Your task to perform on an android device: Open privacy settings Image 0: 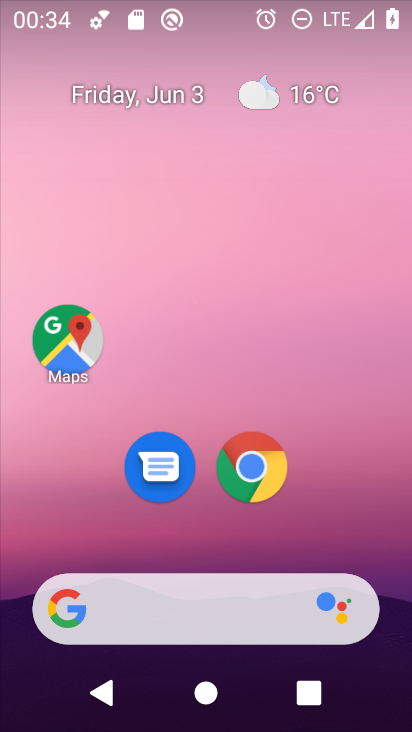
Step 0: drag from (374, 571) to (324, 11)
Your task to perform on an android device: Open privacy settings Image 1: 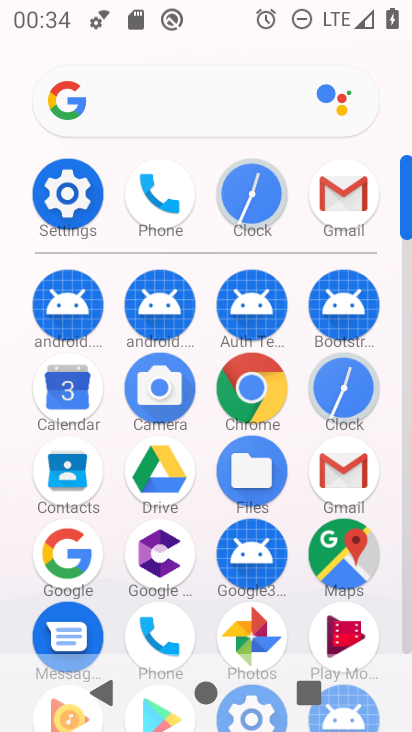
Step 1: click (406, 642)
Your task to perform on an android device: Open privacy settings Image 2: 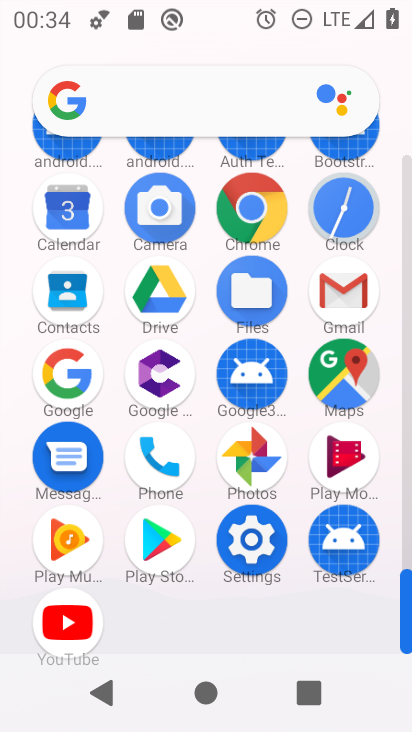
Step 2: click (252, 538)
Your task to perform on an android device: Open privacy settings Image 3: 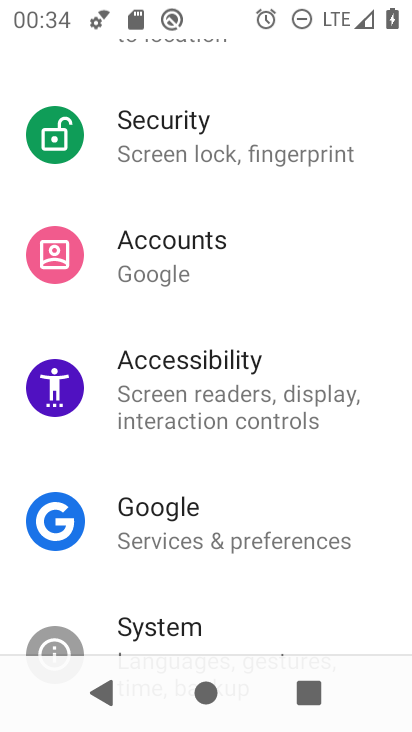
Step 3: drag from (358, 190) to (366, 487)
Your task to perform on an android device: Open privacy settings Image 4: 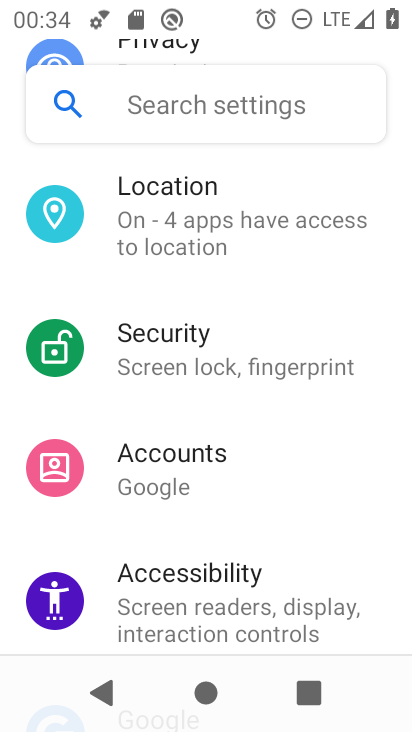
Step 4: drag from (256, 217) to (286, 506)
Your task to perform on an android device: Open privacy settings Image 5: 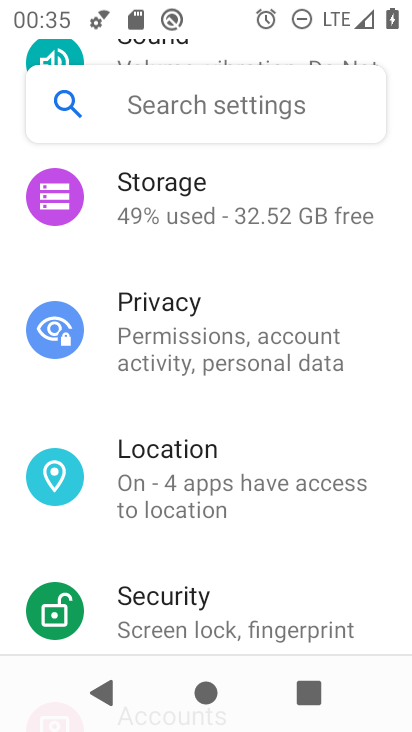
Step 5: click (160, 333)
Your task to perform on an android device: Open privacy settings Image 6: 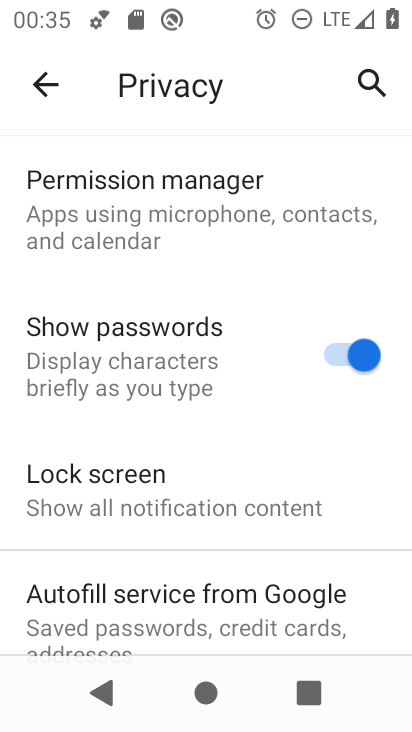
Step 6: drag from (290, 542) to (295, 193)
Your task to perform on an android device: Open privacy settings Image 7: 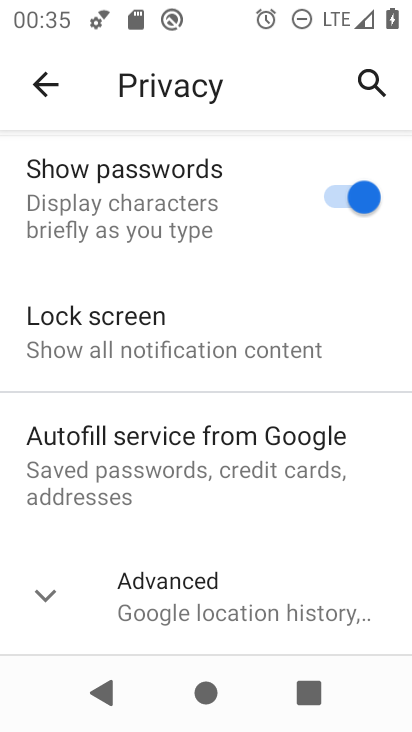
Step 7: click (44, 597)
Your task to perform on an android device: Open privacy settings Image 8: 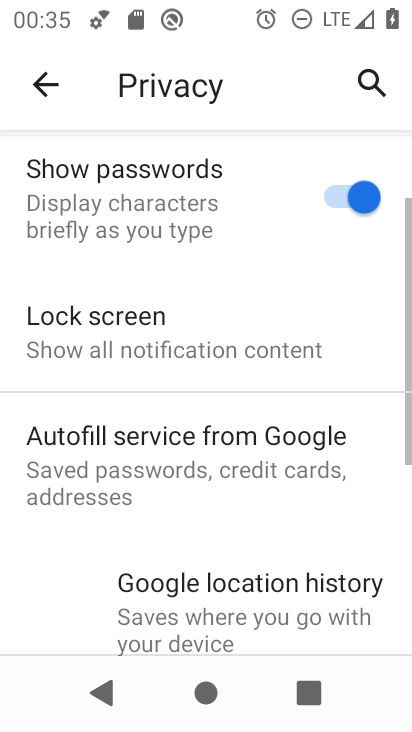
Step 8: task complete